Your task to perform on an android device: Open Wikipedia Image 0: 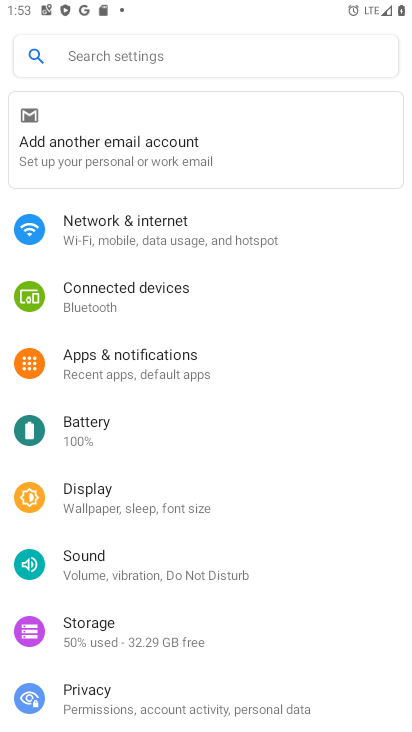
Step 0: drag from (321, 20) to (171, 689)
Your task to perform on an android device: Open Wikipedia Image 1: 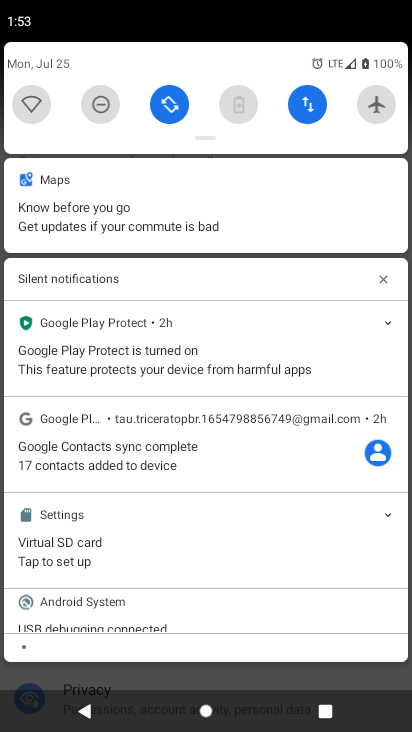
Step 1: task complete